Your task to perform on an android device: show emergency info Image 0: 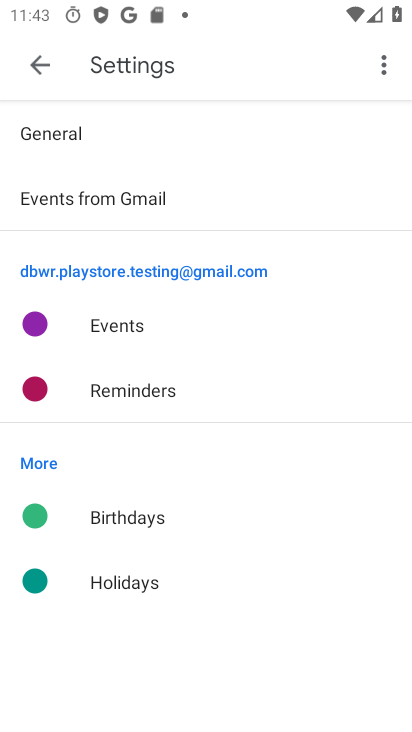
Step 0: press back button
Your task to perform on an android device: show emergency info Image 1: 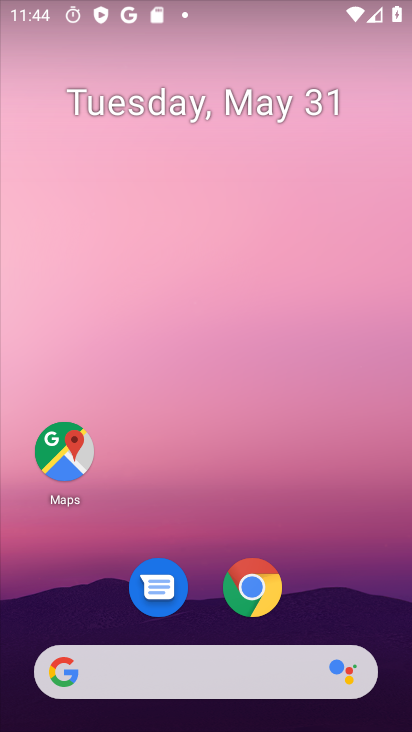
Step 1: drag from (324, 574) to (171, 59)
Your task to perform on an android device: show emergency info Image 2: 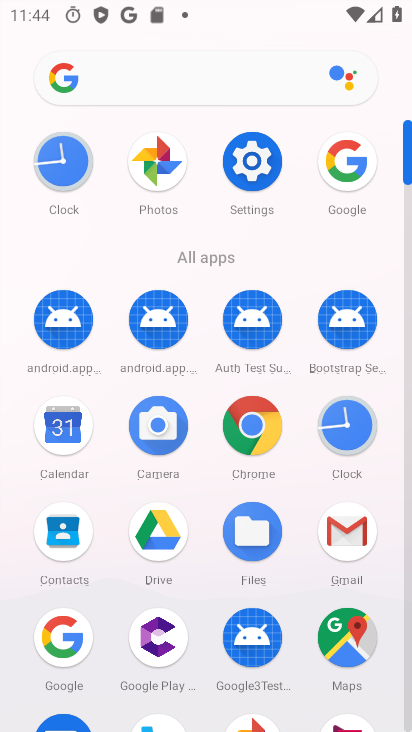
Step 2: click (249, 158)
Your task to perform on an android device: show emergency info Image 3: 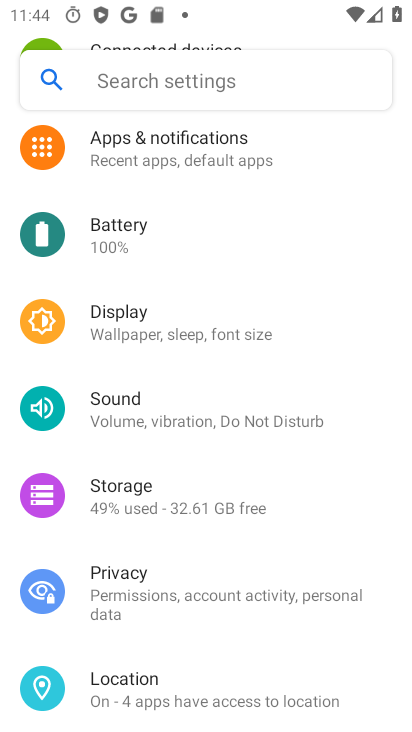
Step 3: drag from (193, 471) to (138, 270)
Your task to perform on an android device: show emergency info Image 4: 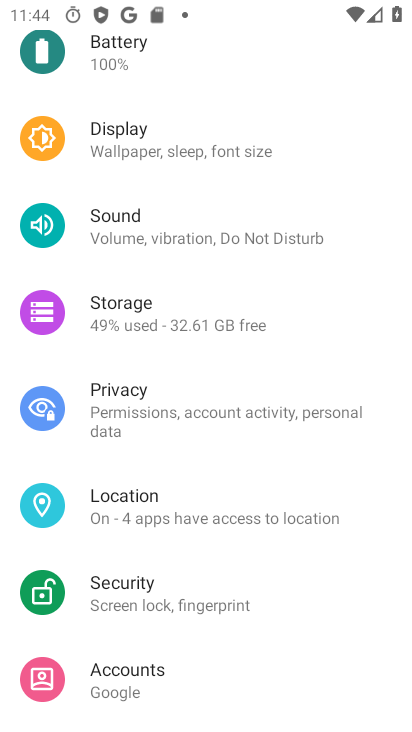
Step 4: drag from (175, 456) to (173, 320)
Your task to perform on an android device: show emergency info Image 5: 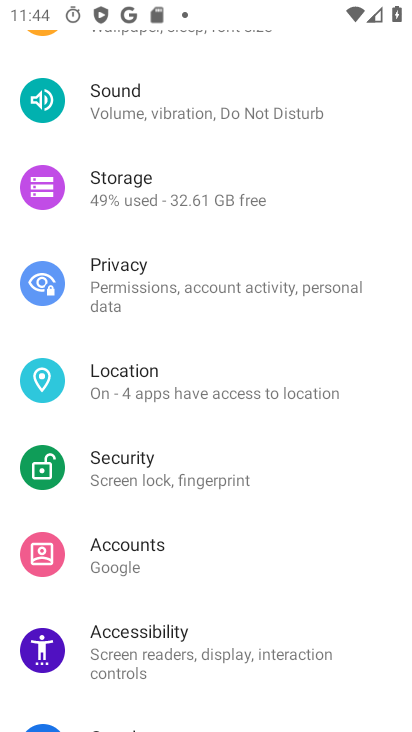
Step 5: drag from (183, 426) to (200, 264)
Your task to perform on an android device: show emergency info Image 6: 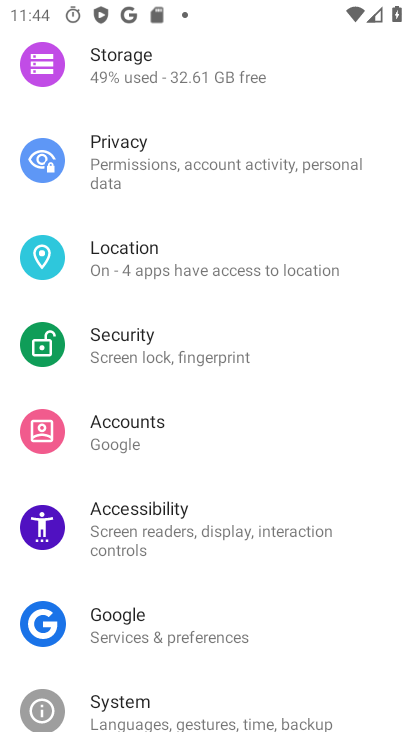
Step 6: drag from (207, 391) to (212, 257)
Your task to perform on an android device: show emergency info Image 7: 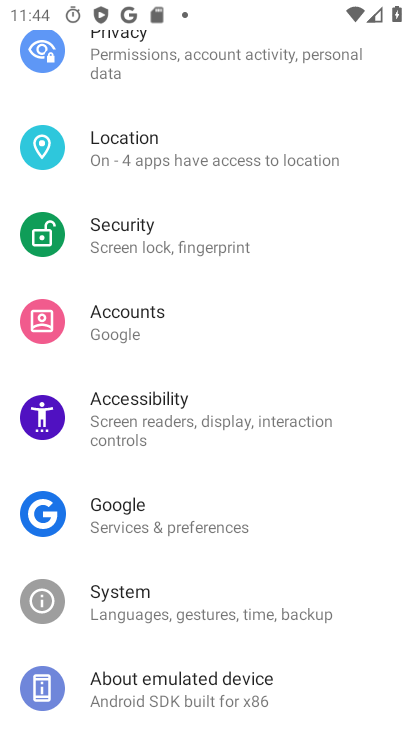
Step 7: click (198, 675)
Your task to perform on an android device: show emergency info Image 8: 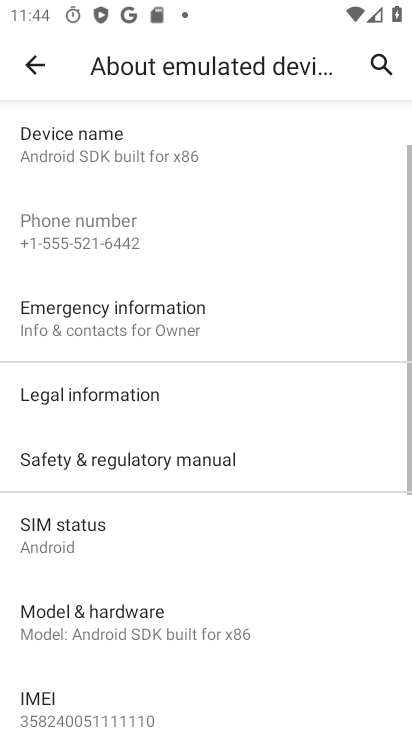
Step 8: click (151, 302)
Your task to perform on an android device: show emergency info Image 9: 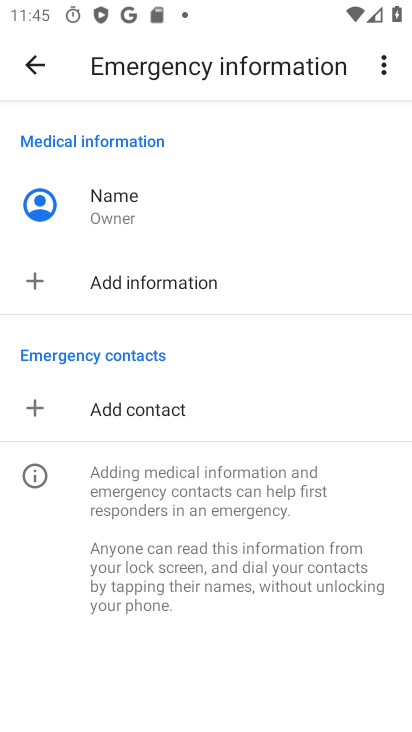
Step 9: task complete